Your task to perform on an android device: See recent photos Image 0: 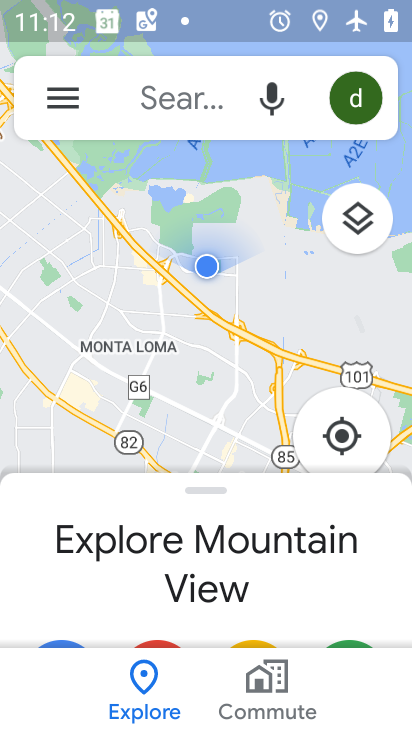
Step 0: press home button
Your task to perform on an android device: See recent photos Image 1: 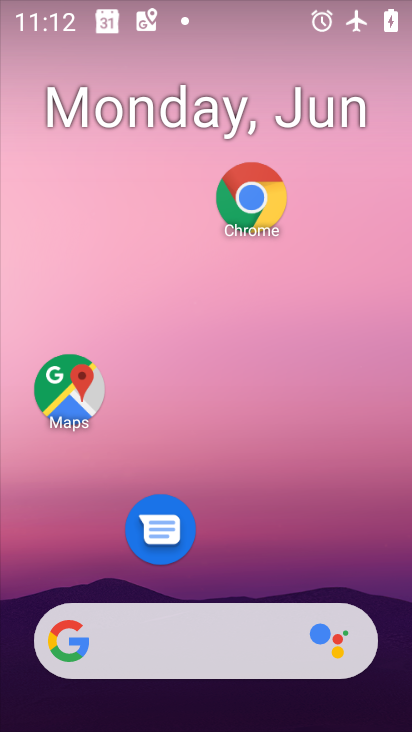
Step 1: drag from (213, 560) to (196, 177)
Your task to perform on an android device: See recent photos Image 2: 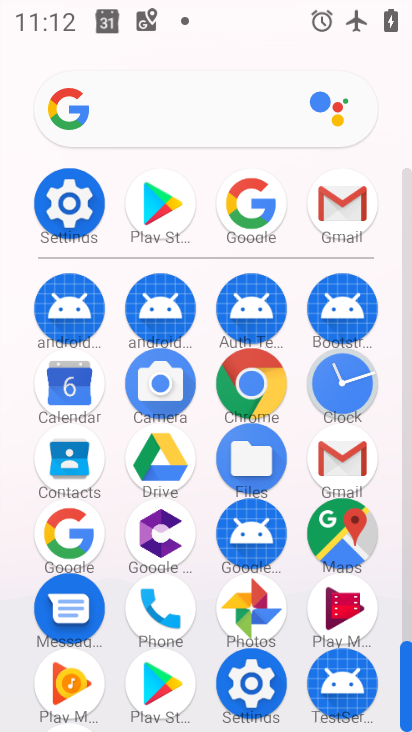
Step 2: click (232, 610)
Your task to perform on an android device: See recent photos Image 3: 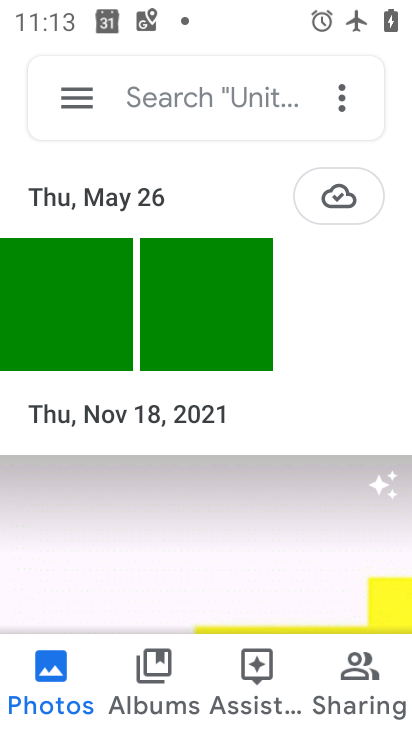
Step 3: task complete